Your task to perform on an android device: turn on bluetooth scan Image 0: 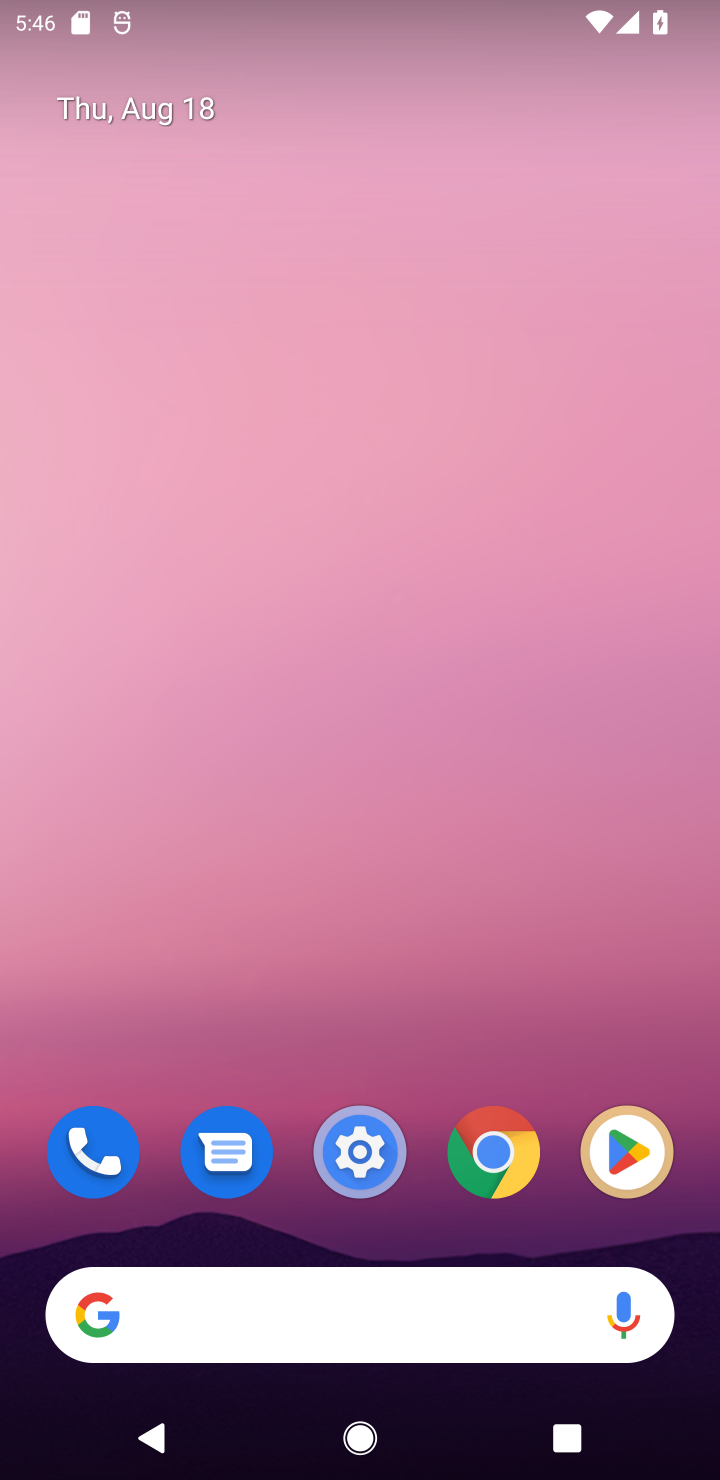
Step 0: drag from (95, 1418) to (307, 832)
Your task to perform on an android device: turn on bluetooth scan Image 1: 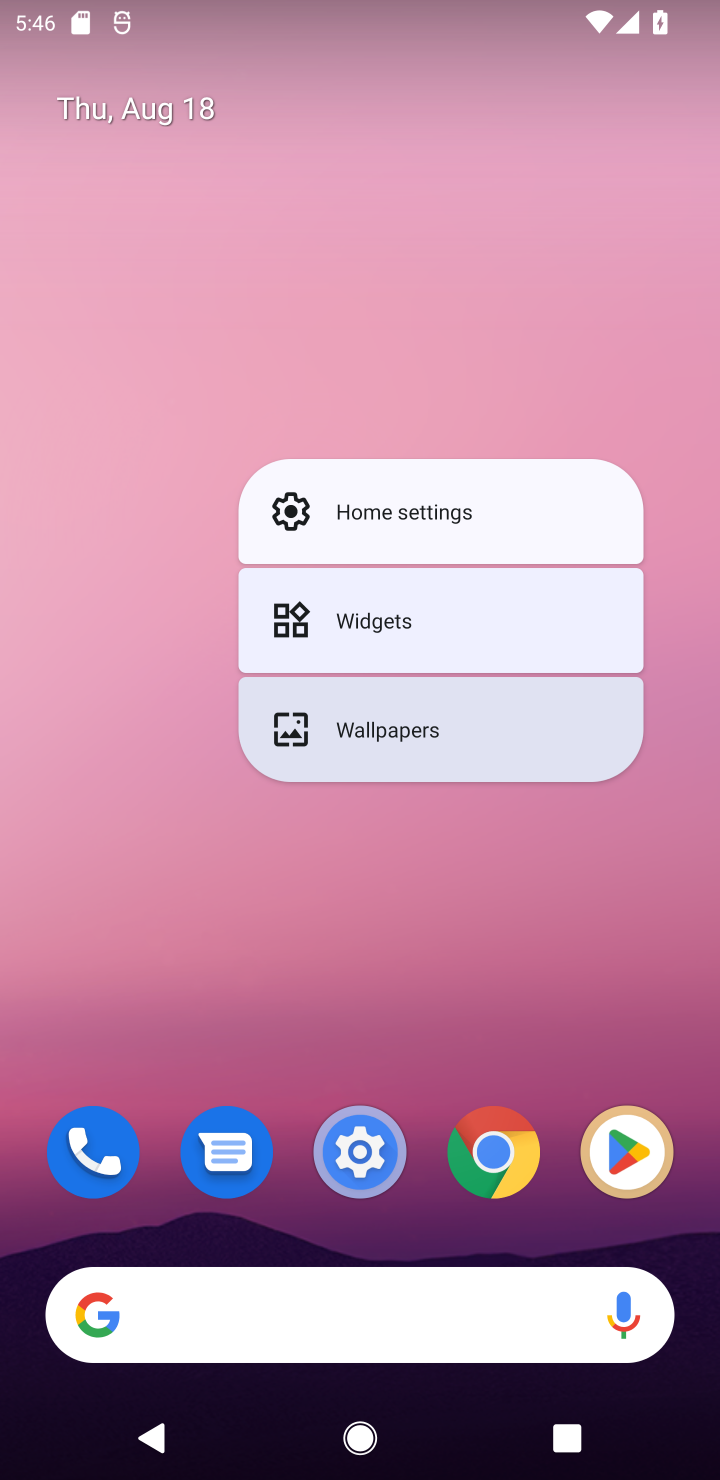
Step 1: click (389, 1172)
Your task to perform on an android device: turn on bluetooth scan Image 2: 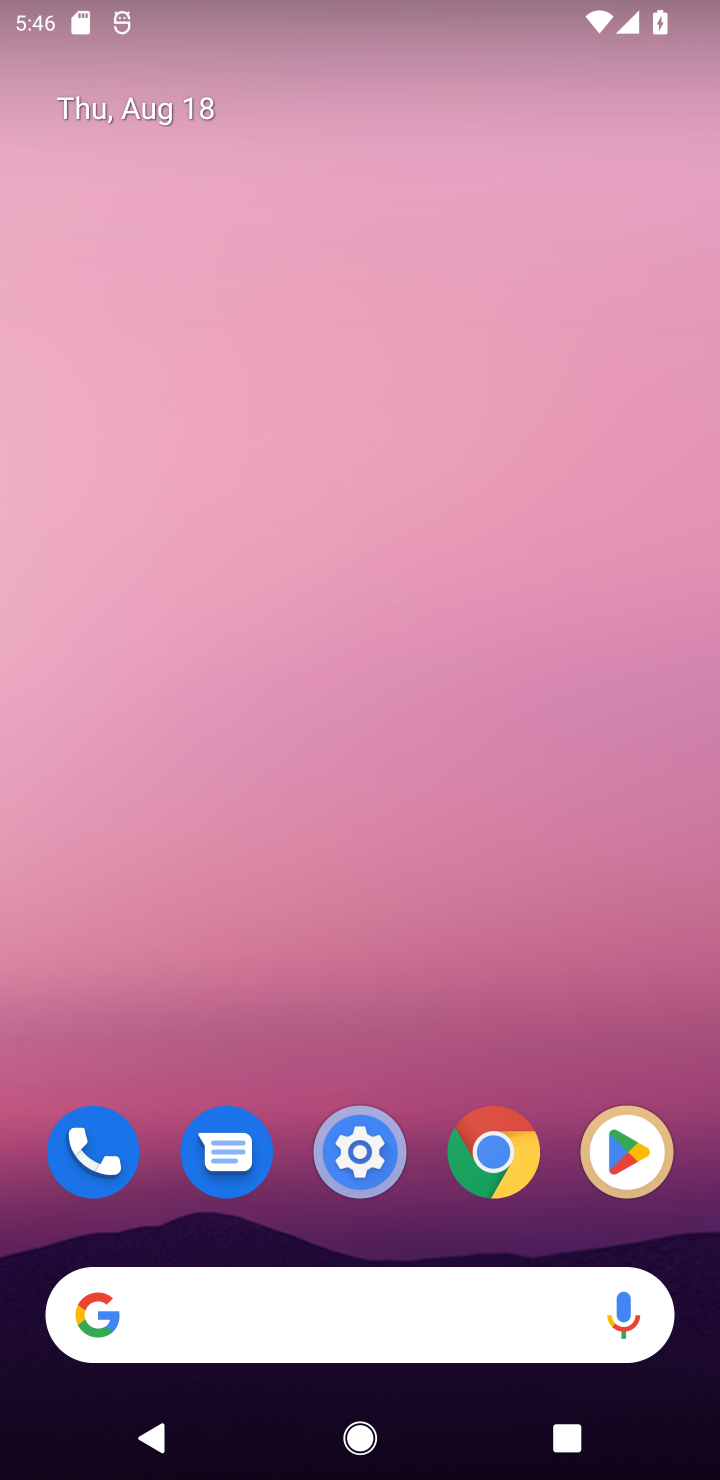
Step 2: click (389, 1172)
Your task to perform on an android device: turn on bluetooth scan Image 3: 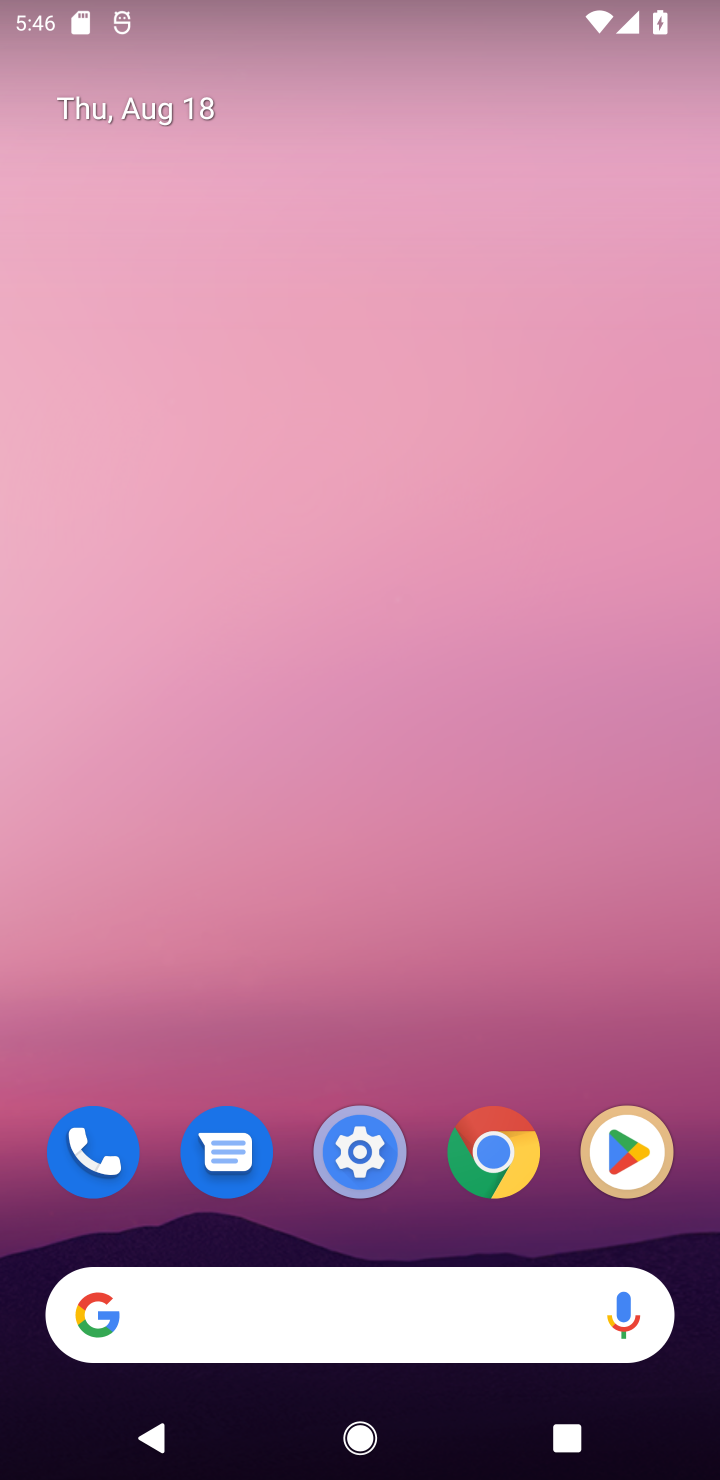
Step 3: task complete